Your task to perform on an android device: check the backup settings in the google photos Image 0: 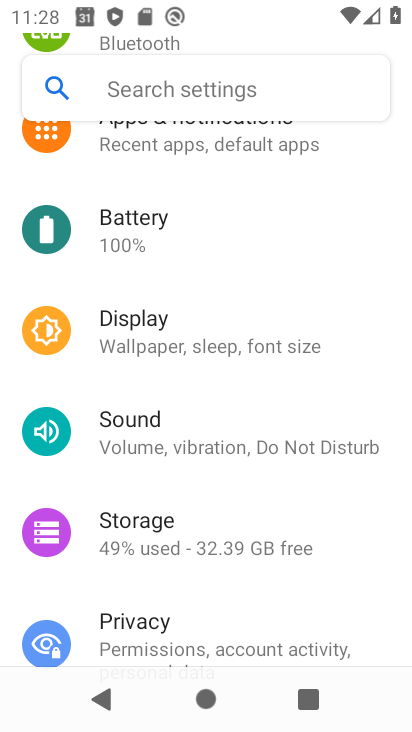
Step 0: press home button
Your task to perform on an android device: check the backup settings in the google photos Image 1: 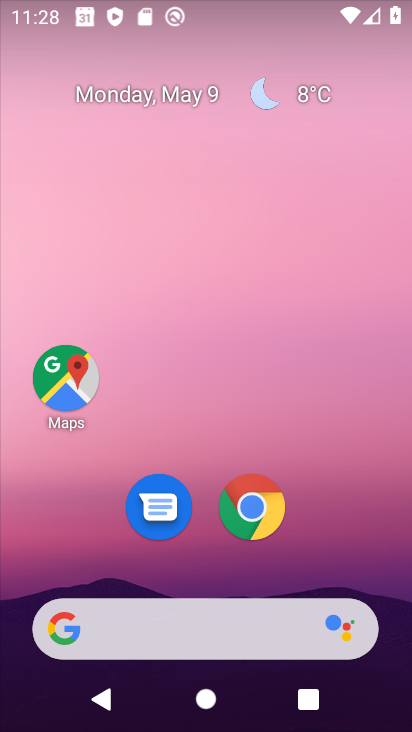
Step 1: drag from (306, 518) to (278, 75)
Your task to perform on an android device: check the backup settings in the google photos Image 2: 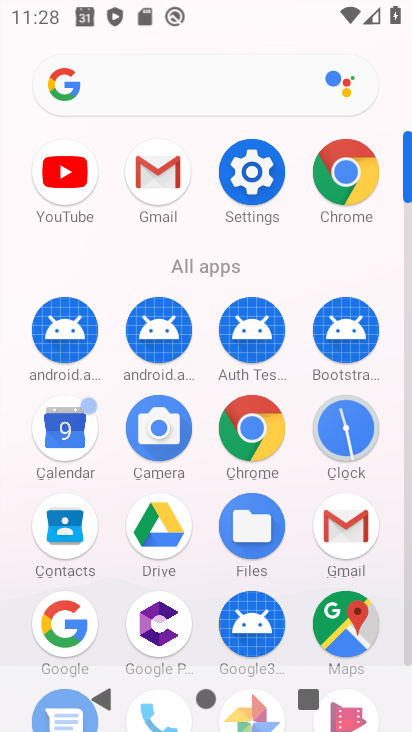
Step 2: drag from (195, 648) to (231, 287)
Your task to perform on an android device: check the backup settings in the google photos Image 3: 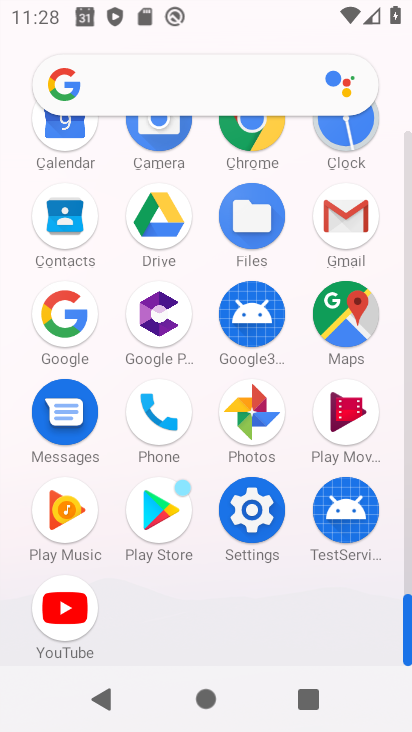
Step 3: click (242, 413)
Your task to perform on an android device: check the backup settings in the google photos Image 4: 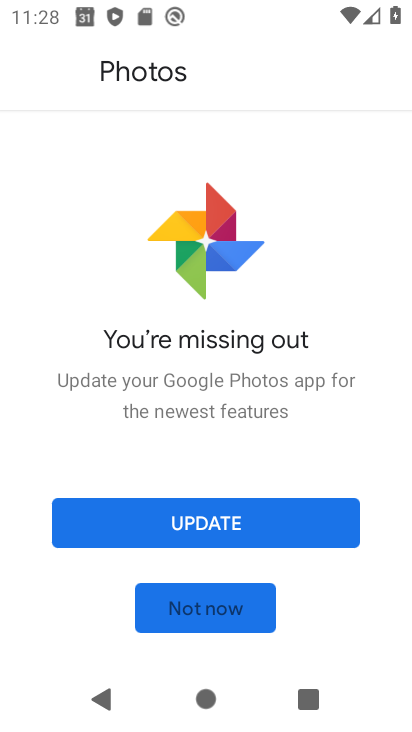
Step 4: click (222, 539)
Your task to perform on an android device: check the backup settings in the google photos Image 5: 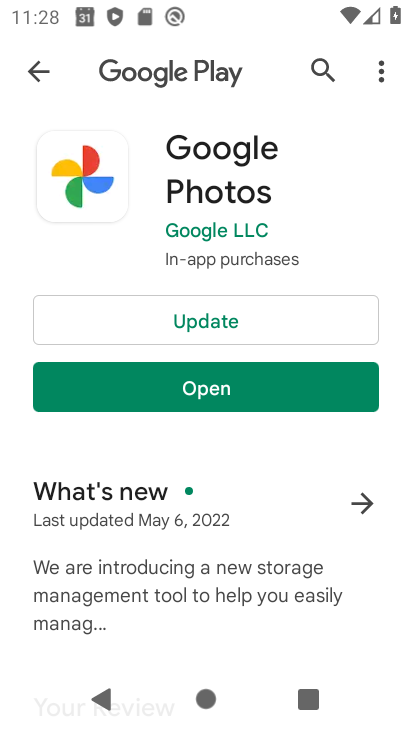
Step 5: click (205, 325)
Your task to perform on an android device: check the backup settings in the google photos Image 6: 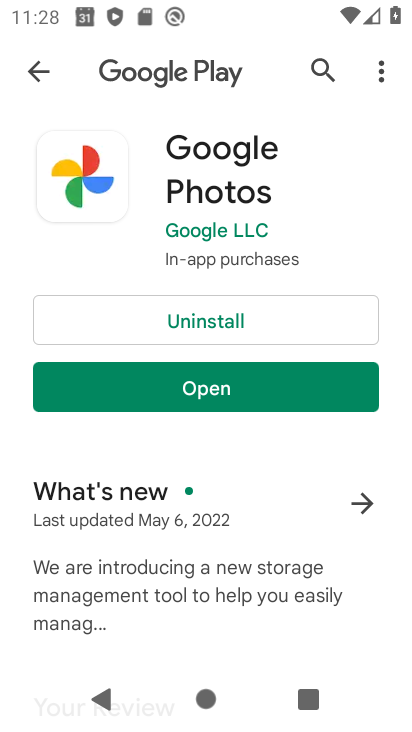
Step 6: click (201, 373)
Your task to perform on an android device: check the backup settings in the google photos Image 7: 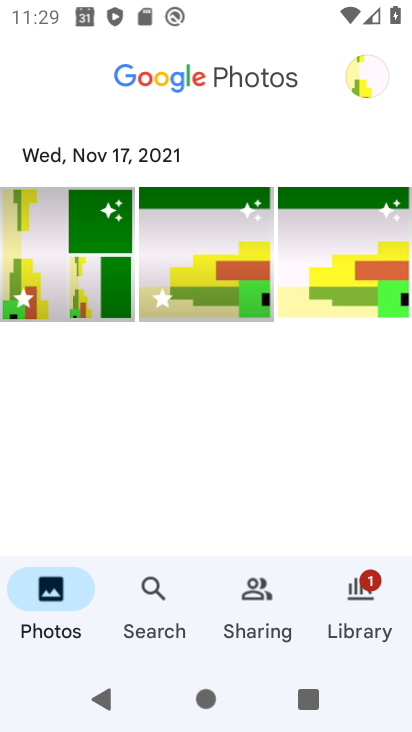
Step 7: click (380, 77)
Your task to perform on an android device: check the backup settings in the google photos Image 8: 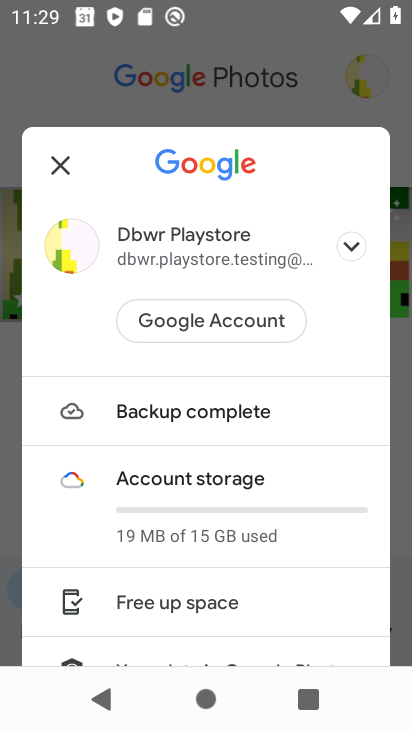
Step 8: drag from (229, 587) to (239, 460)
Your task to perform on an android device: check the backup settings in the google photos Image 9: 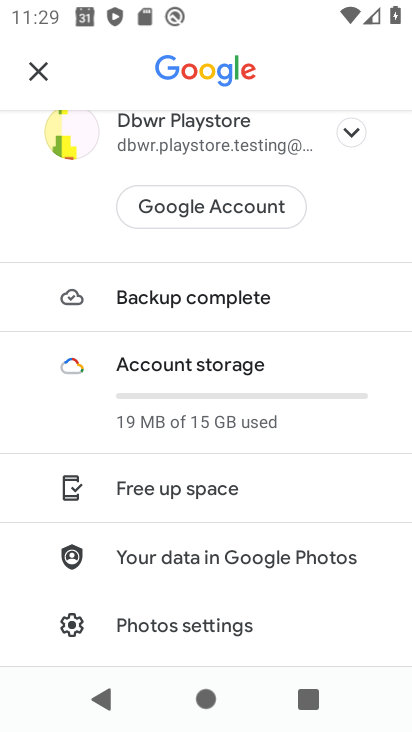
Step 9: click (354, 123)
Your task to perform on an android device: check the backup settings in the google photos Image 10: 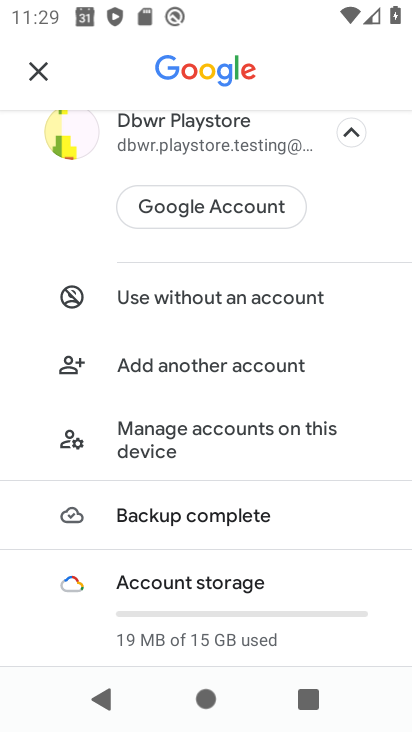
Step 10: drag from (198, 568) to (179, 268)
Your task to perform on an android device: check the backup settings in the google photos Image 11: 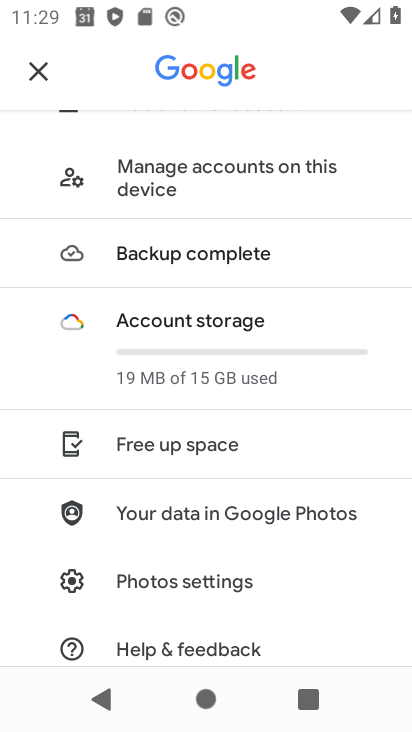
Step 11: click (207, 583)
Your task to perform on an android device: check the backup settings in the google photos Image 12: 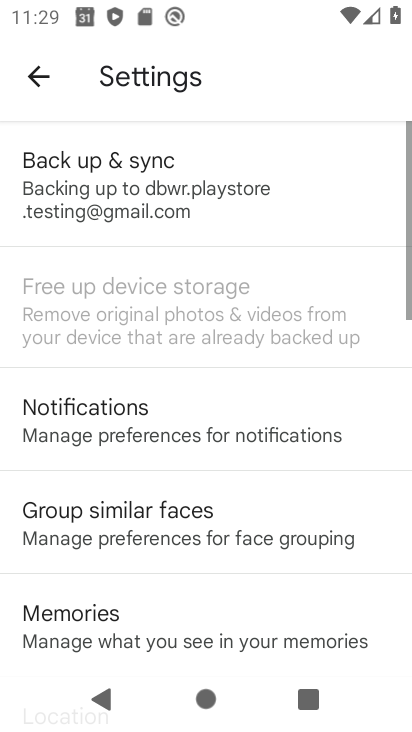
Step 12: click (149, 202)
Your task to perform on an android device: check the backup settings in the google photos Image 13: 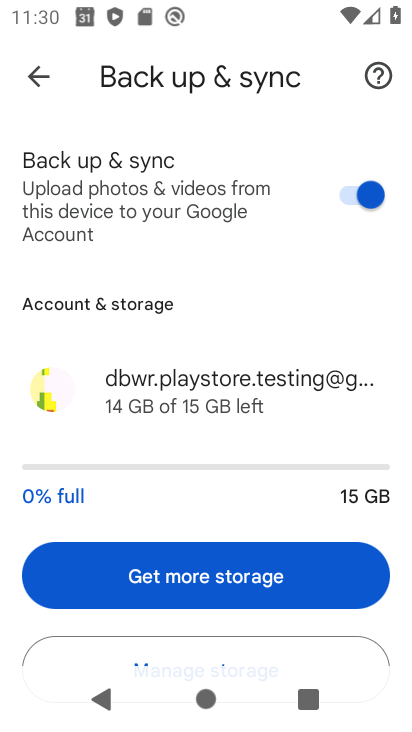
Step 13: task complete